Your task to perform on an android device: change the clock display to show seconds Image 0: 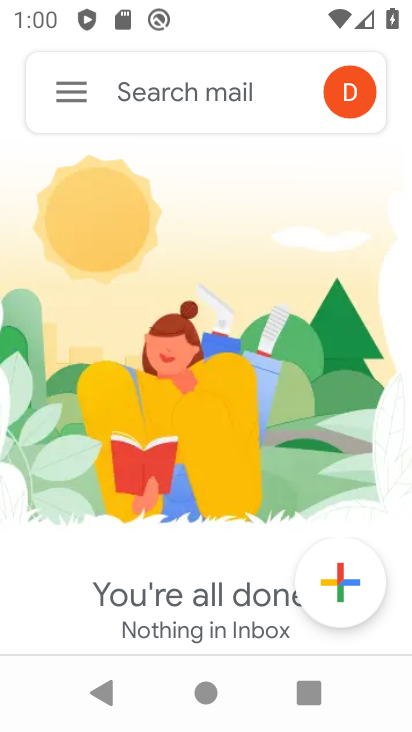
Step 0: press home button
Your task to perform on an android device: change the clock display to show seconds Image 1: 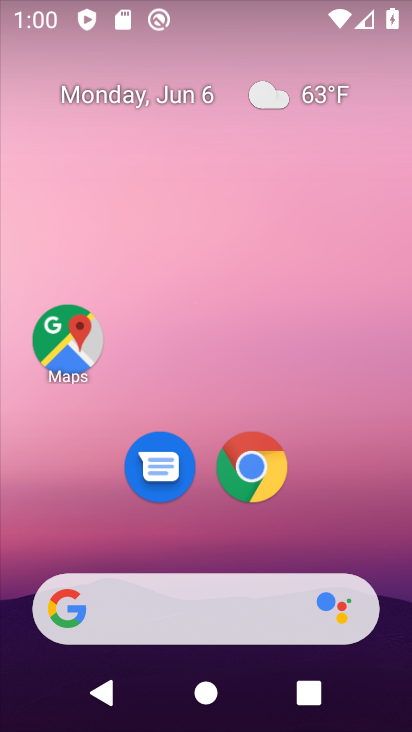
Step 1: drag from (397, 656) to (325, 78)
Your task to perform on an android device: change the clock display to show seconds Image 2: 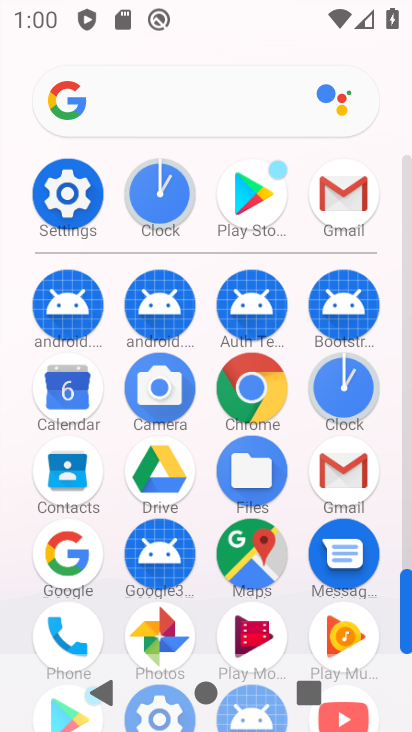
Step 2: click (343, 391)
Your task to perform on an android device: change the clock display to show seconds Image 3: 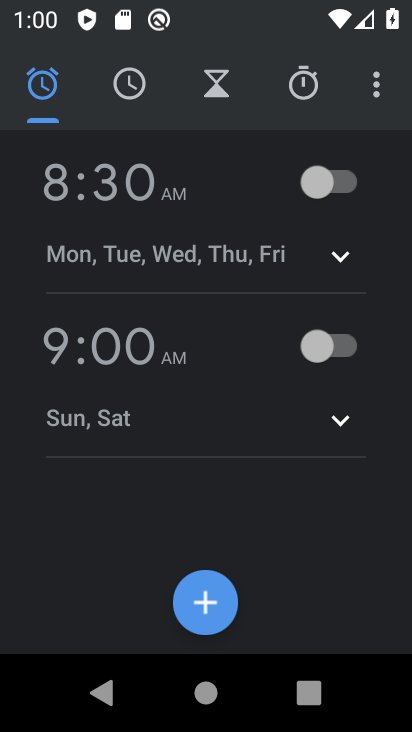
Step 3: click (380, 87)
Your task to perform on an android device: change the clock display to show seconds Image 4: 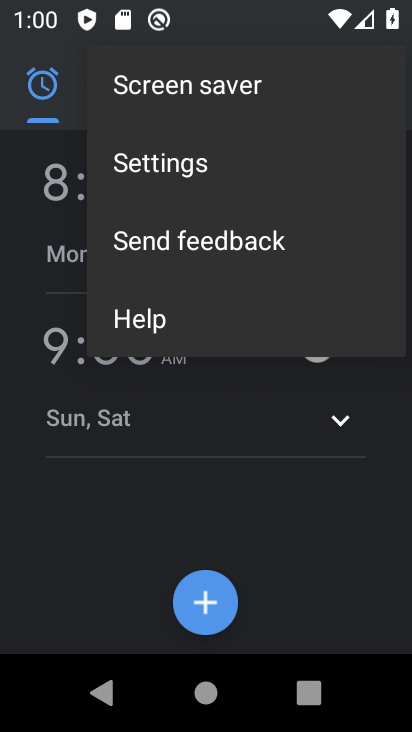
Step 4: click (143, 168)
Your task to perform on an android device: change the clock display to show seconds Image 5: 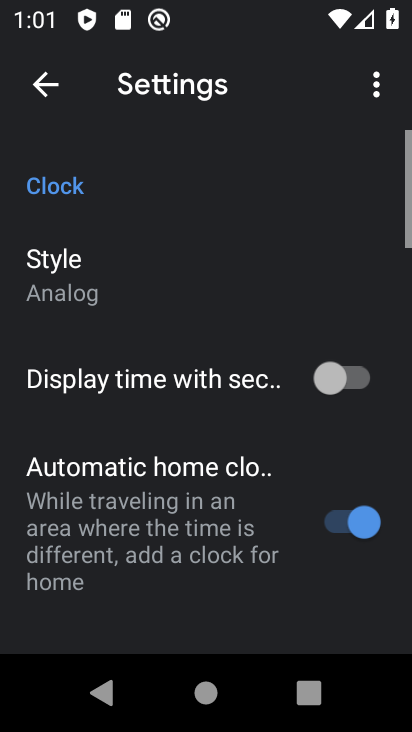
Step 5: click (312, 392)
Your task to perform on an android device: change the clock display to show seconds Image 6: 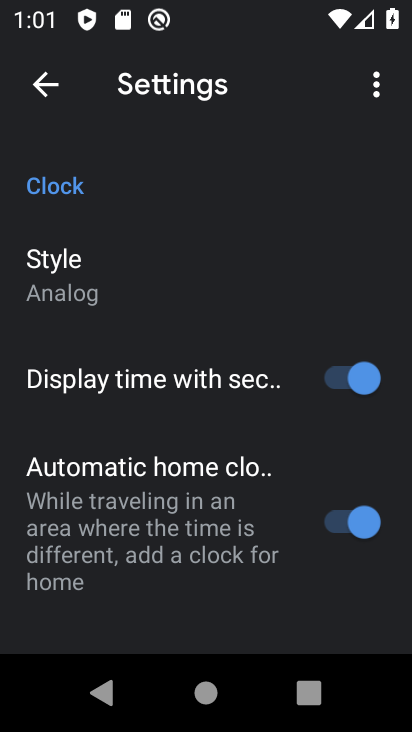
Step 6: task complete